Your task to perform on an android device: change notification settings in the gmail app Image 0: 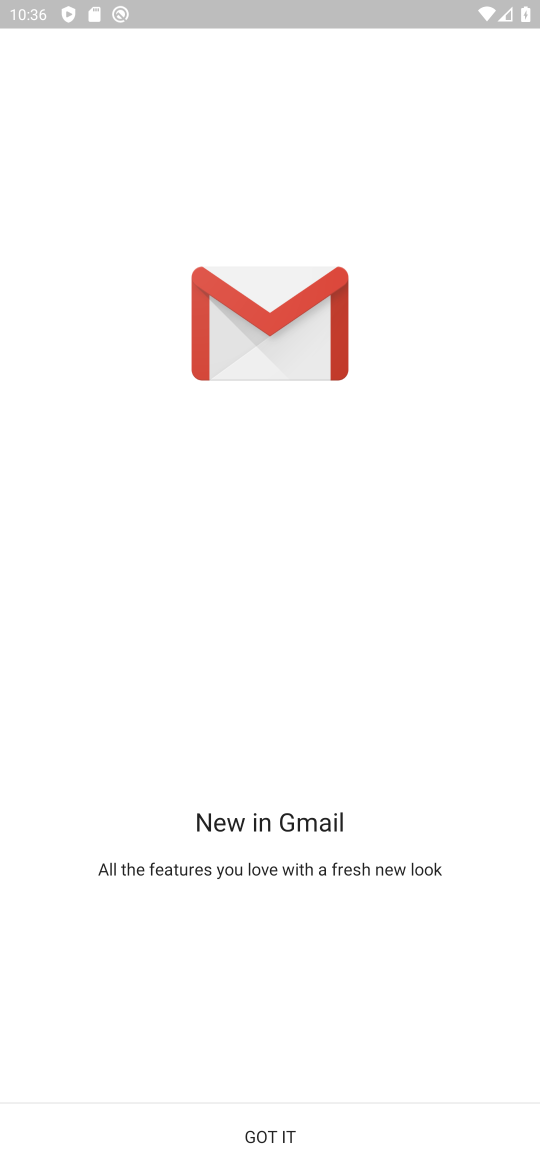
Step 0: press home button
Your task to perform on an android device: change notification settings in the gmail app Image 1: 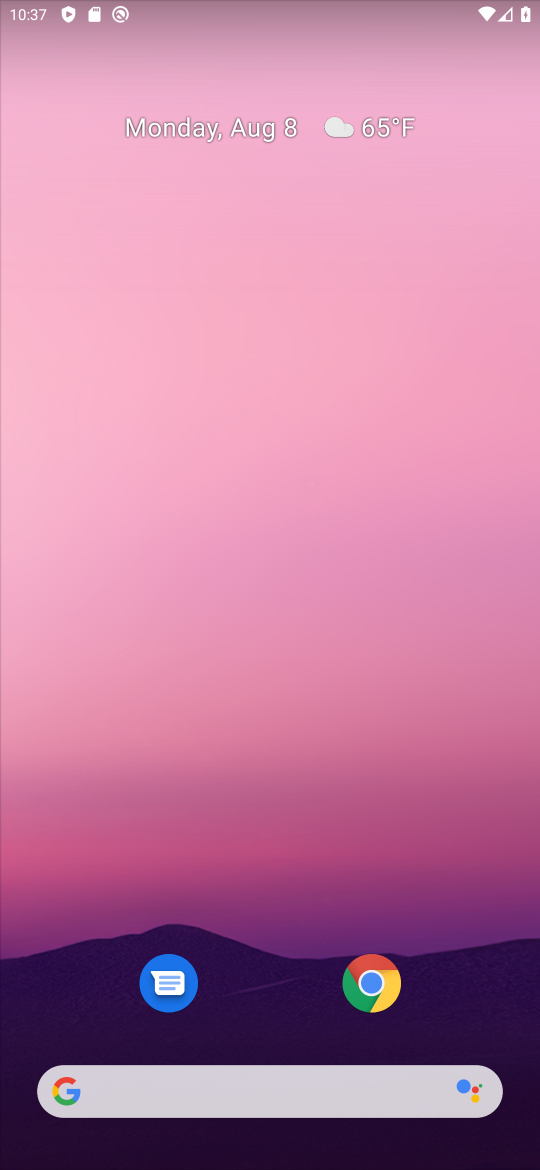
Step 1: drag from (280, 1039) to (201, 108)
Your task to perform on an android device: change notification settings in the gmail app Image 2: 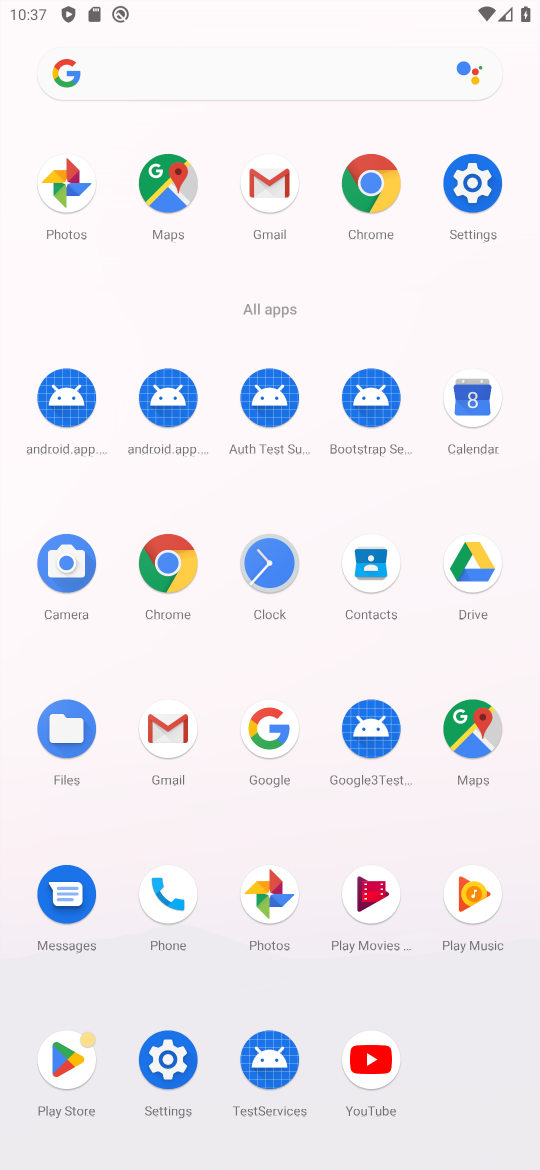
Step 2: click (244, 214)
Your task to perform on an android device: change notification settings in the gmail app Image 3: 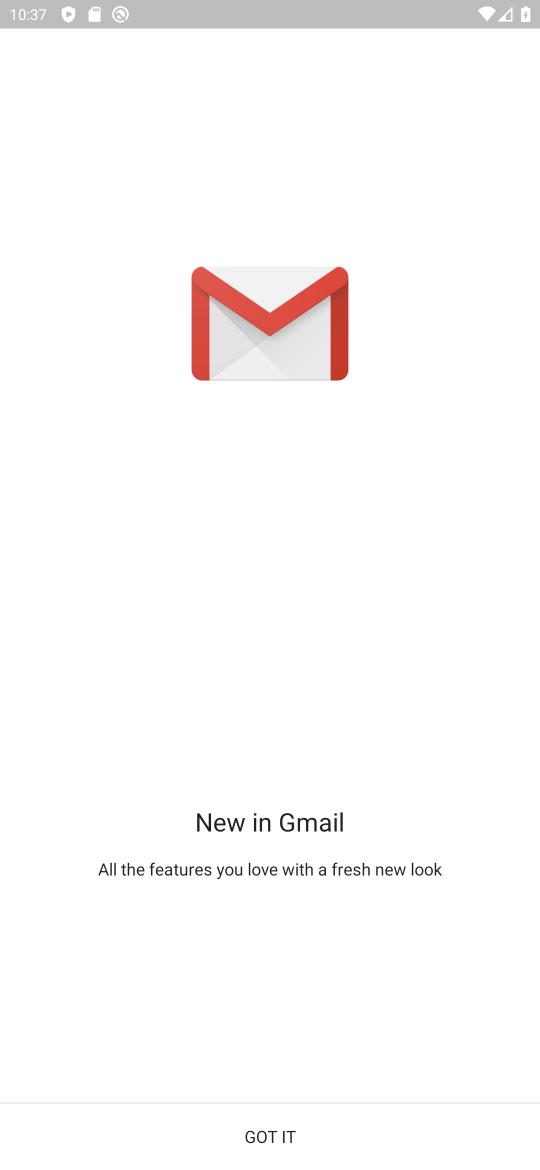
Step 3: click (296, 1113)
Your task to perform on an android device: change notification settings in the gmail app Image 4: 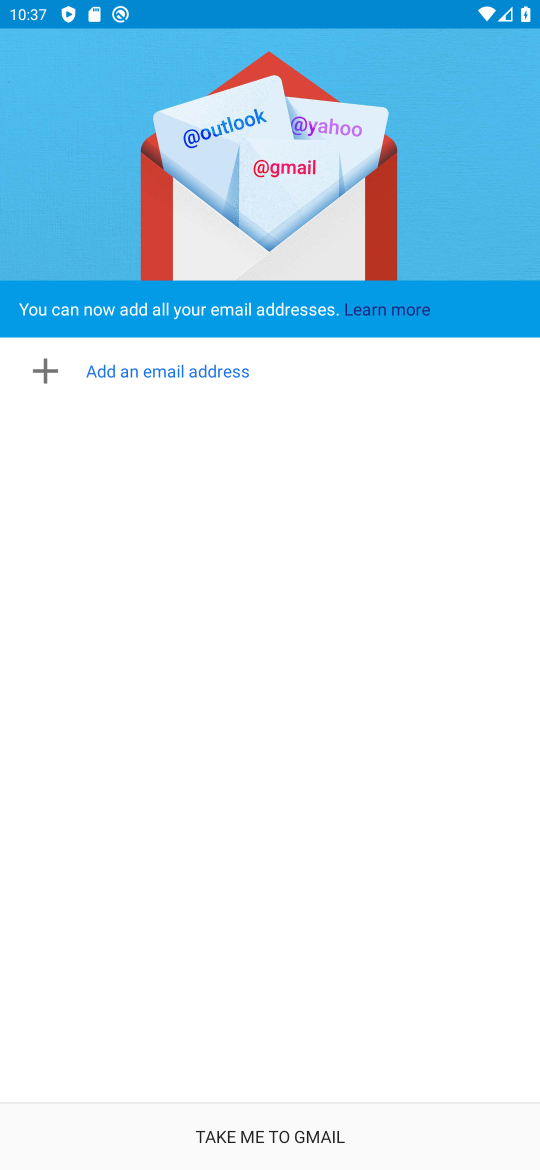
Step 4: click (296, 1113)
Your task to perform on an android device: change notification settings in the gmail app Image 5: 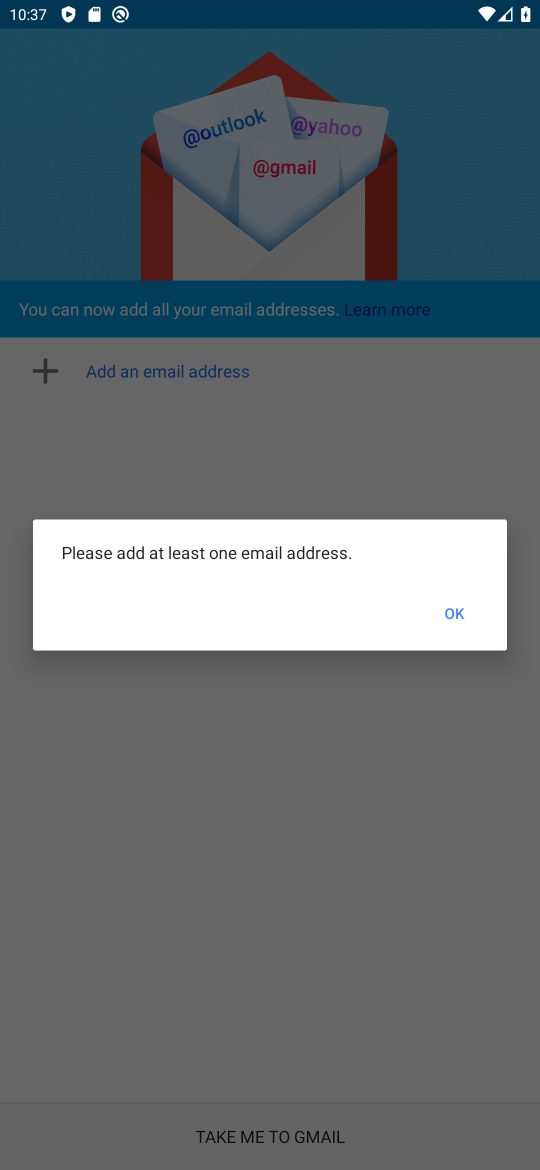
Step 5: task complete